Your task to perform on an android device: change text size in settings app Image 0: 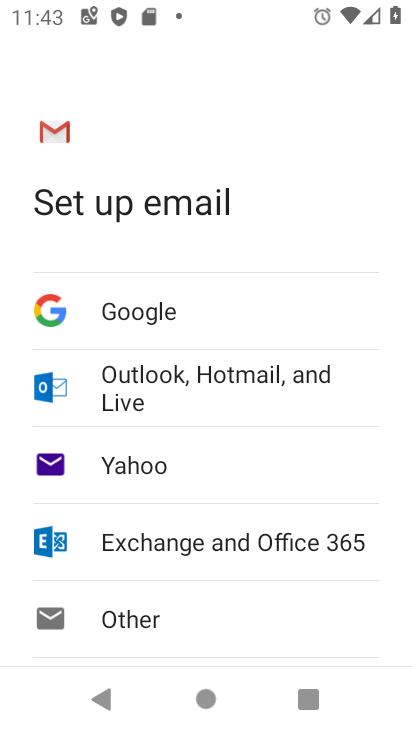
Step 0: press home button
Your task to perform on an android device: change text size in settings app Image 1: 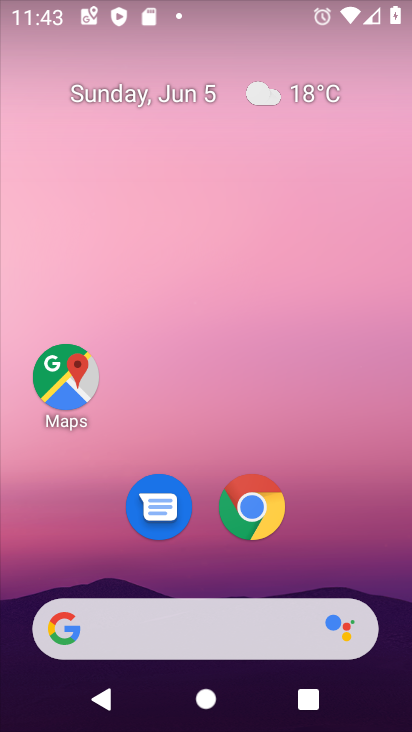
Step 1: drag from (239, 724) to (244, 46)
Your task to perform on an android device: change text size in settings app Image 2: 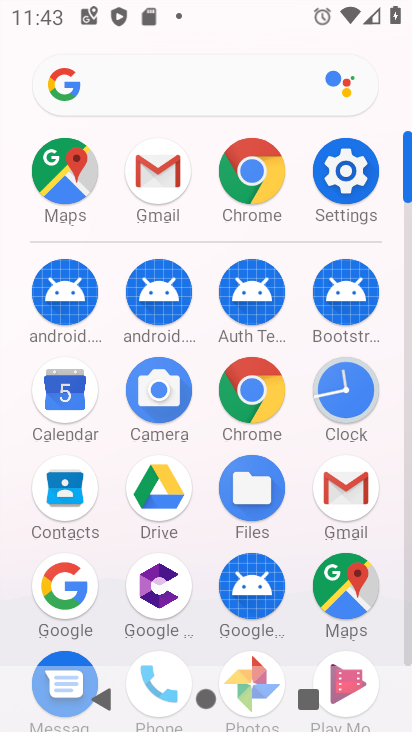
Step 2: click (337, 169)
Your task to perform on an android device: change text size in settings app Image 3: 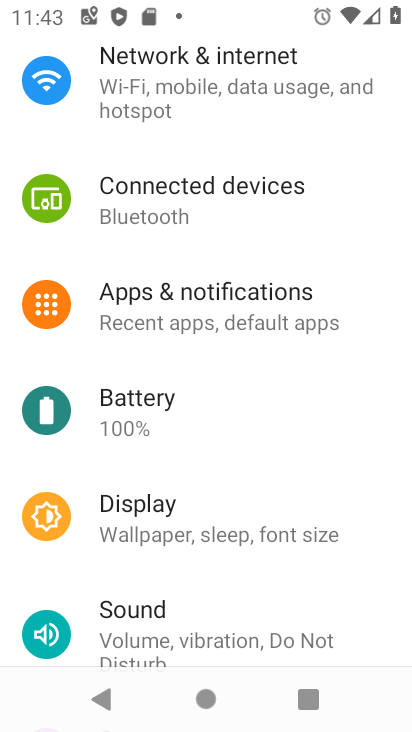
Step 3: drag from (237, 358) to (230, 212)
Your task to perform on an android device: change text size in settings app Image 4: 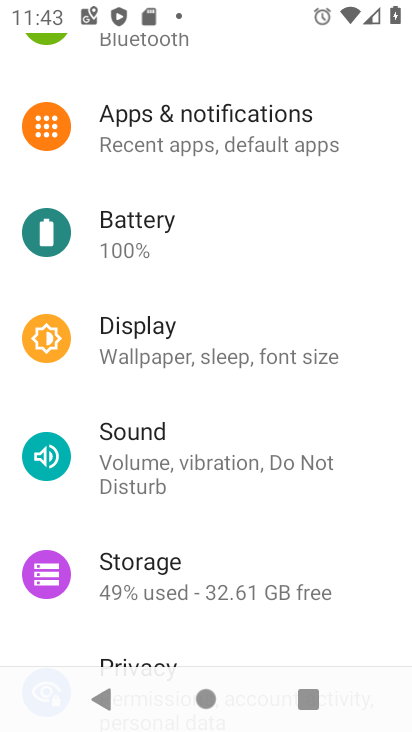
Step 4: click (230, 354)
Your task to perform on an android device: change text size in settings app Image 5: 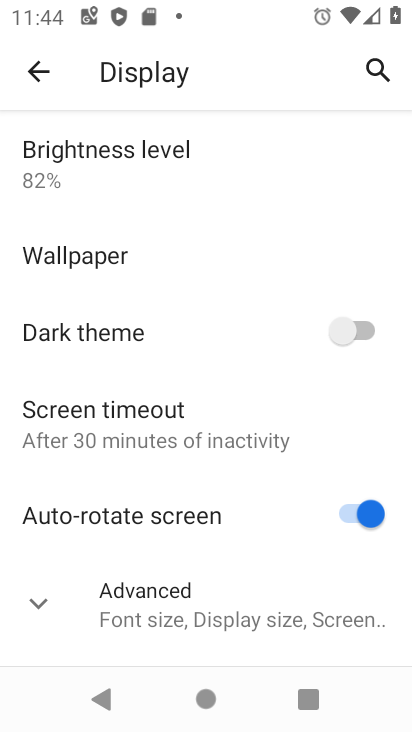
Step 5: drag from (232, 618) to (198, 297)
Your task to perform on an android device: change text size in settings app Image 6: 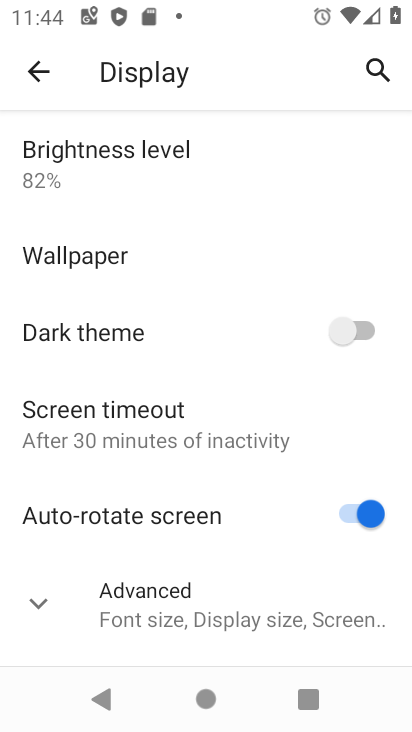
Step 6: click (189, 615)
Your task to perform on an android device: change text size in settings app Image 7: 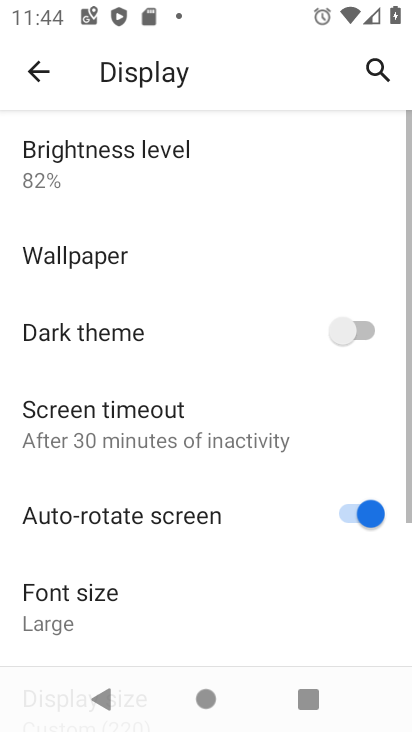
Step 7: drag from (220, 640) to (220, 301)
Your task to perform on an android device: change text size in settings app Image 8: 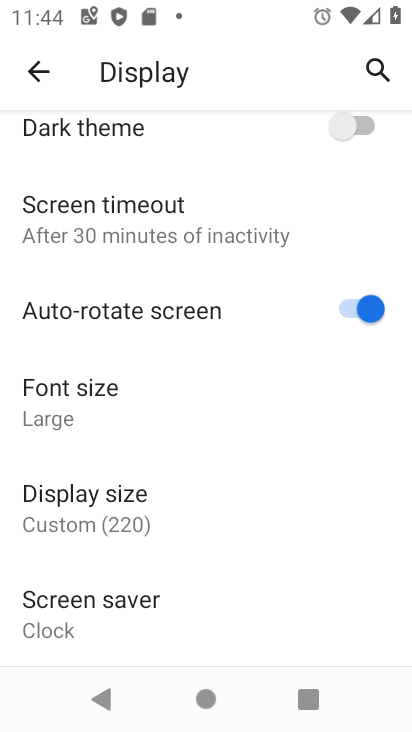
Step 8: click (55, 409)
Your task to perform on an android device: change text size in settings app Image 9: 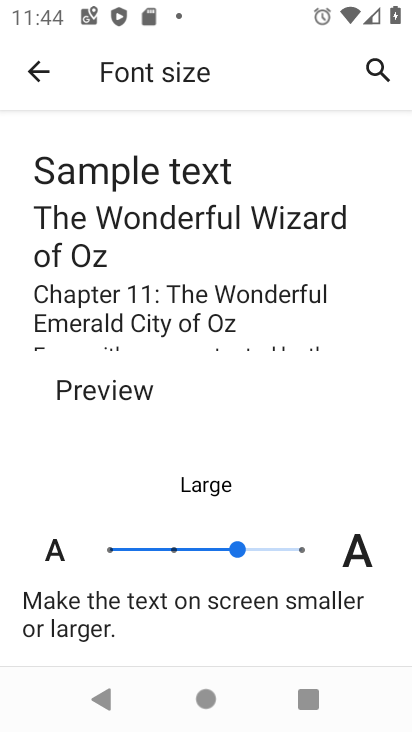
Step 9: click (176, 548)
Your task to perform on an android device: change text size in settings app Image 10: 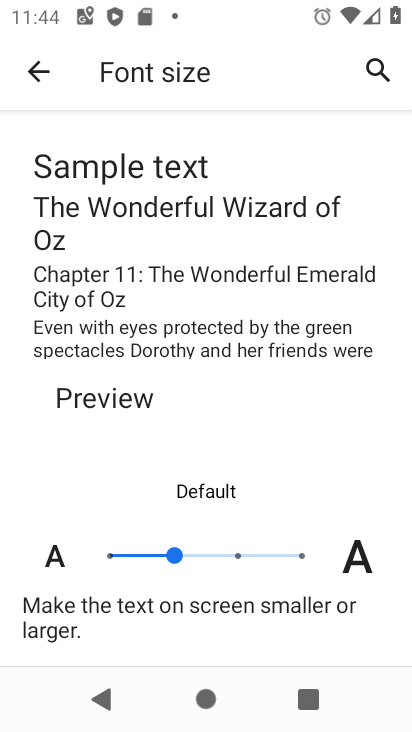
Step 10: task complete